Your task to perform on an android device: open app "Contacts" Image 0: 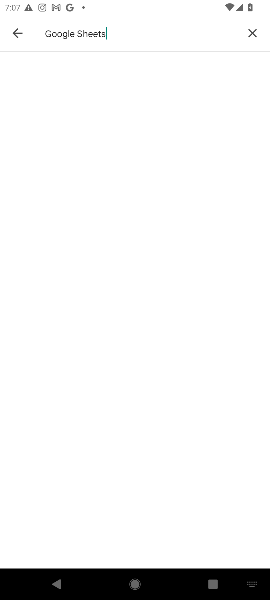
Step 0: press home button
Your task to perform on an android device: open app "Contacts" Image 1: 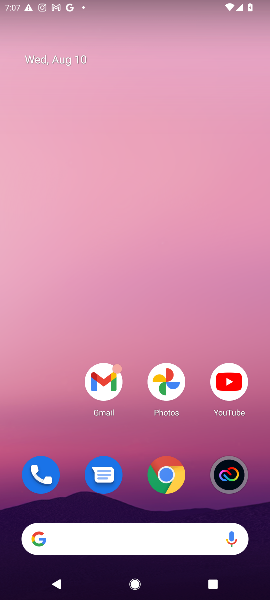
Step 1: drag from (93, 527) to (154, 197)
Your task to perform on an android device: open app "Contacts" Image 2: 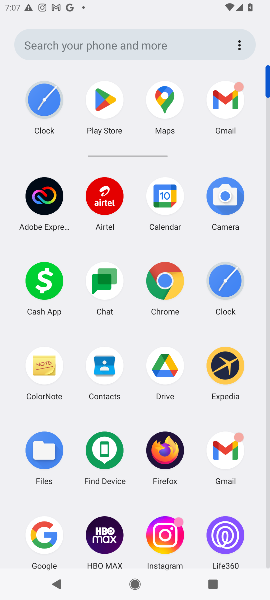
Step 2: click (93, 372)
Your task to perform on an android device: open app "Contacts" Image 3: 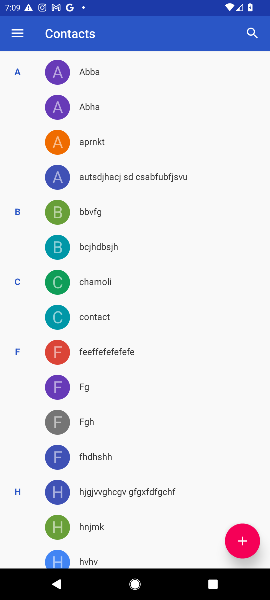
Step 3: task complete